Your task to perform on an android device: What is the recent news? Image 0: 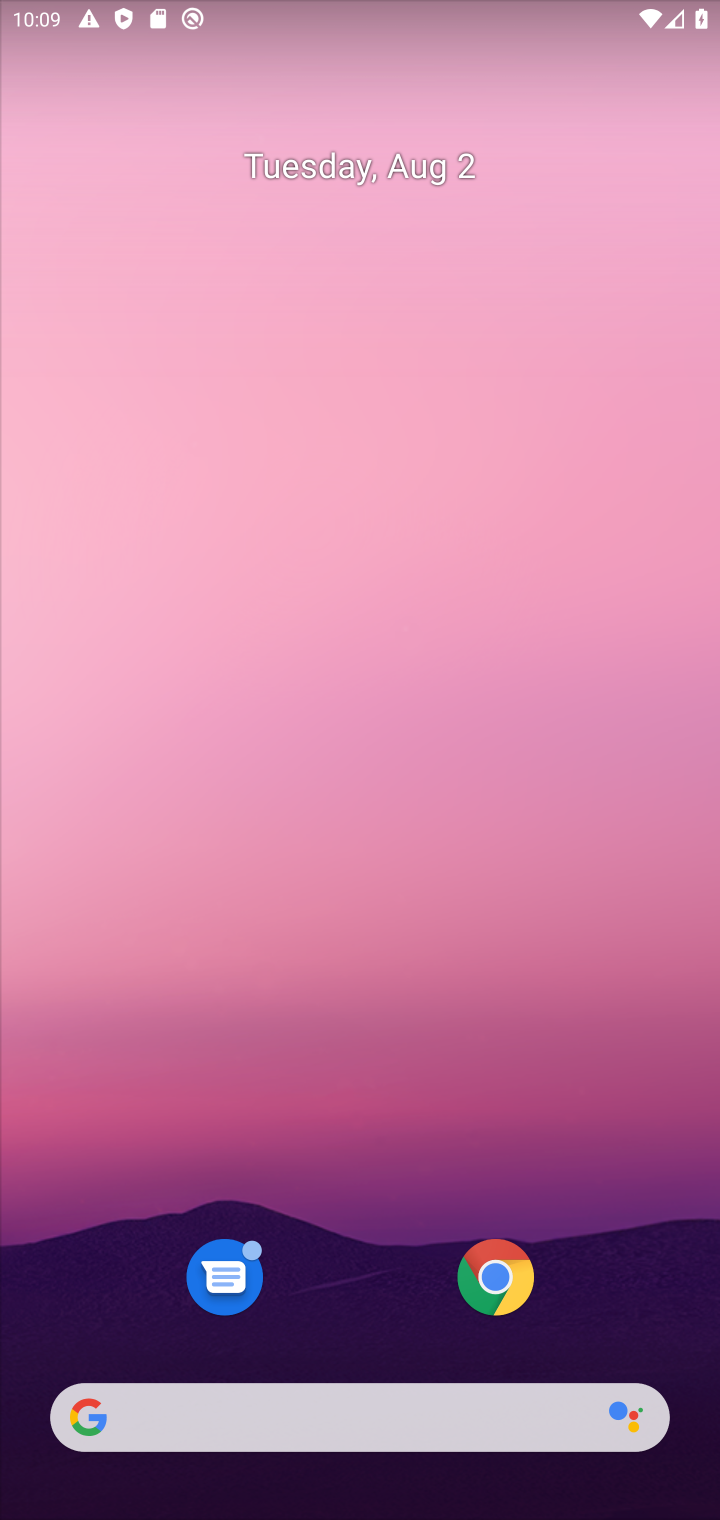
Step 0: press home button
Your task to perform on an android device: What is the recent news? Image 1: 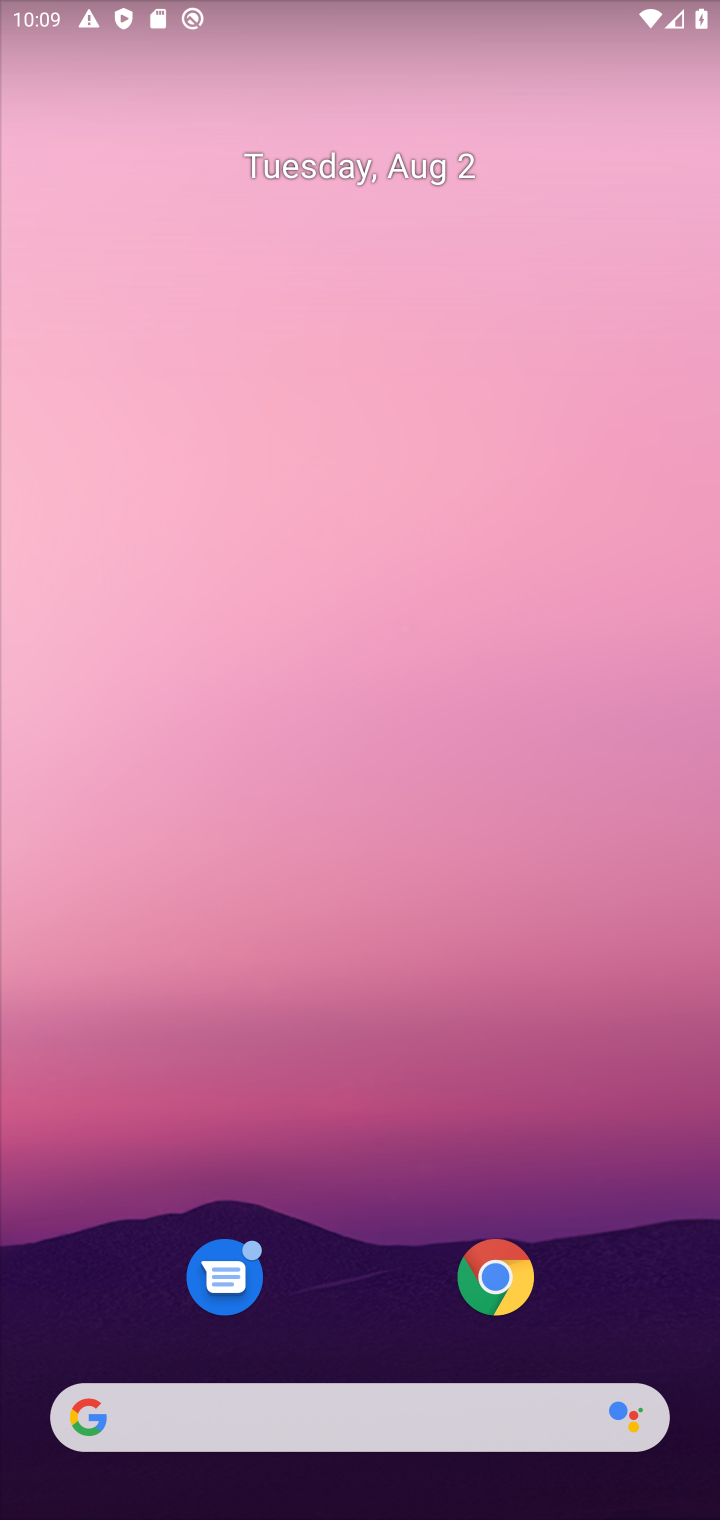
Step 1: click (115, 1411)
Your task to perform on an android device: What is the recent news? Image 2: 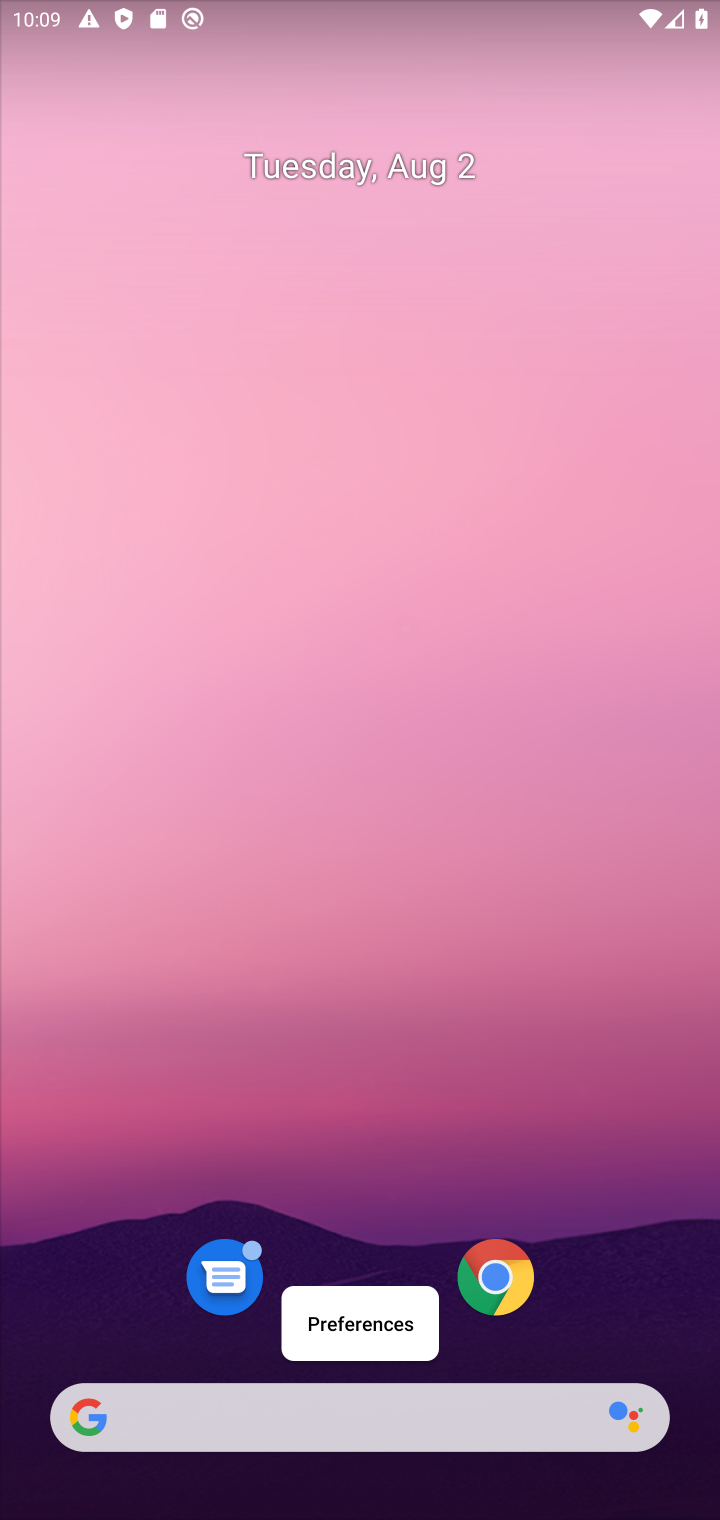
Step 2: click (82, 1403)
Your task to perform on an android device: What is the recent news? Image 3: 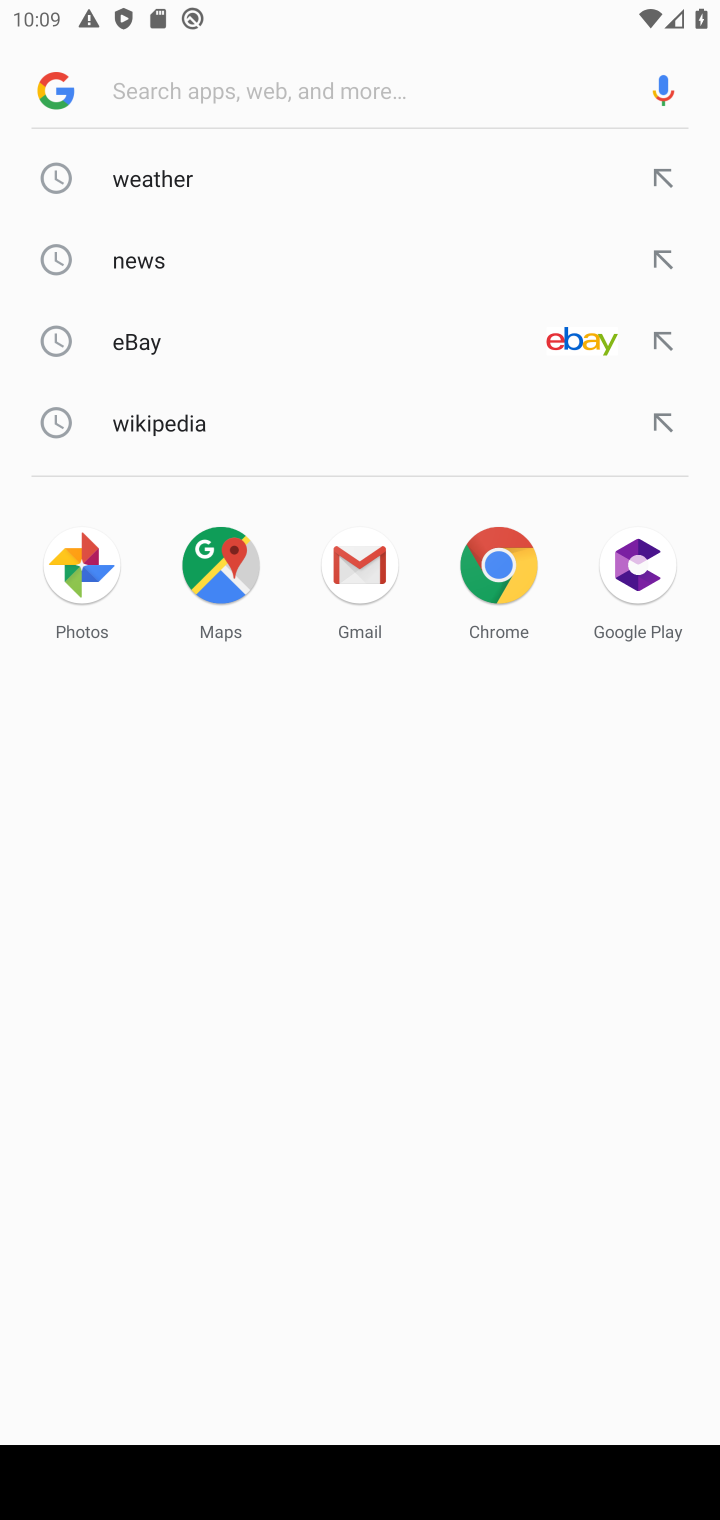
Step 3: type "recent news?"
Your task to perform on an android device: What is the recent news? Image 4: 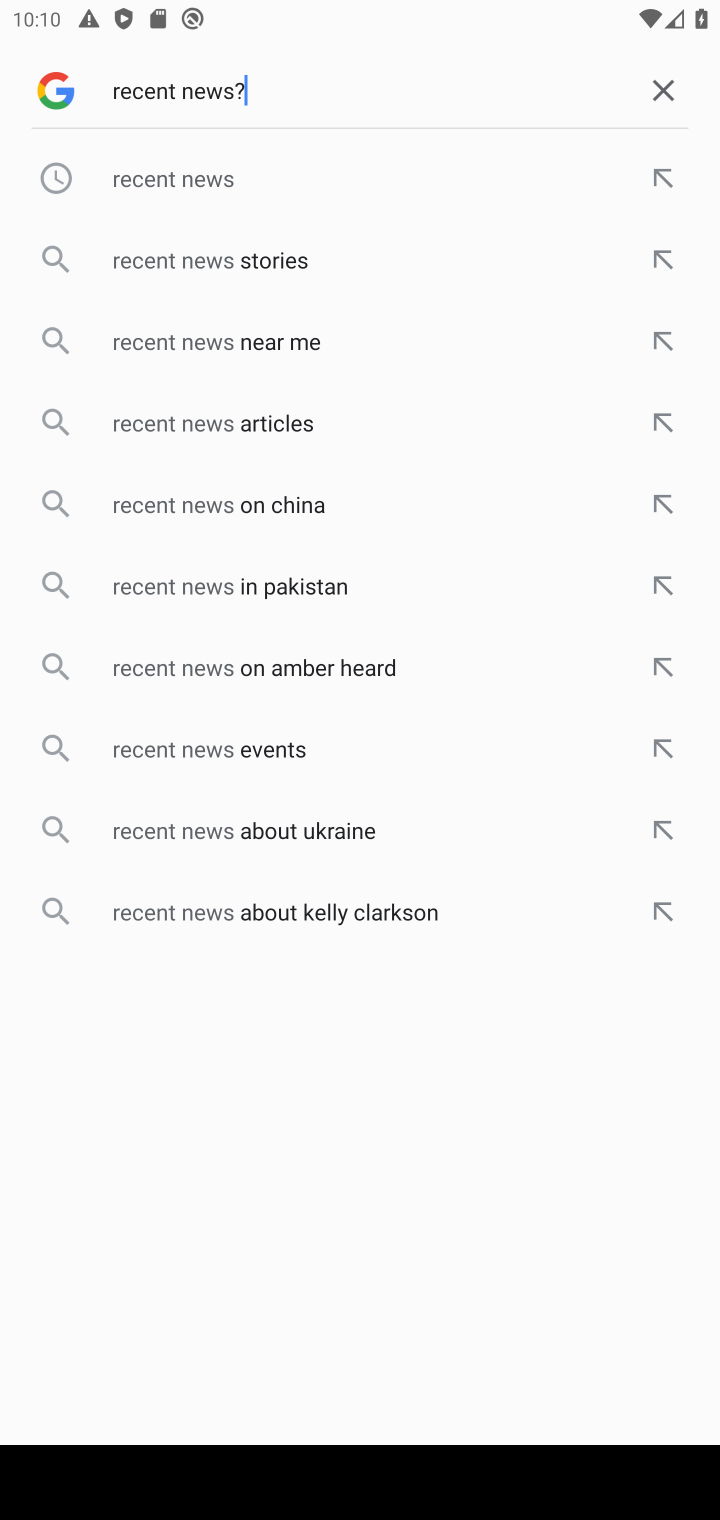
Step 4: press enter
Your task to perform on an android device: What is the recent news? Image 5: 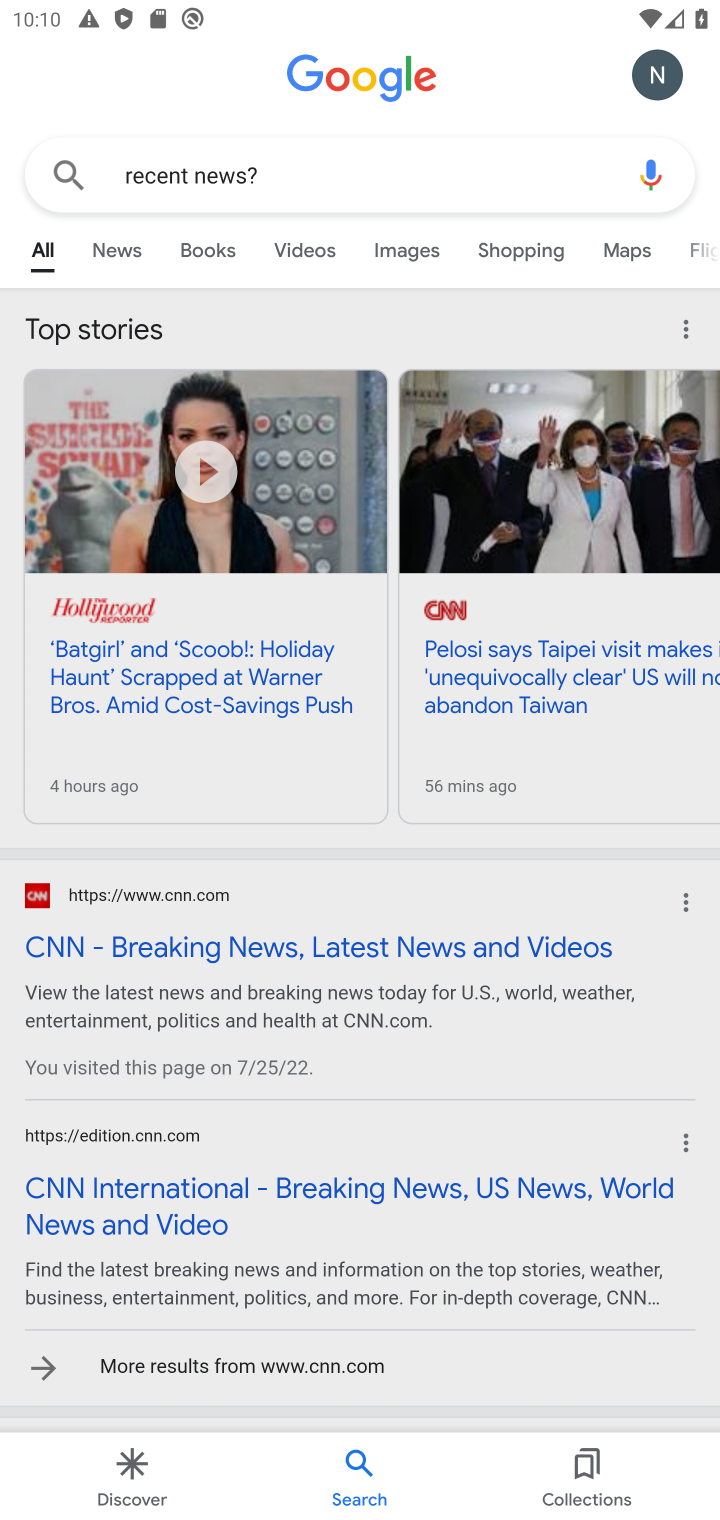
Step 5: task complete